Your task to perform on an android device: turn notification dots on Image 0: 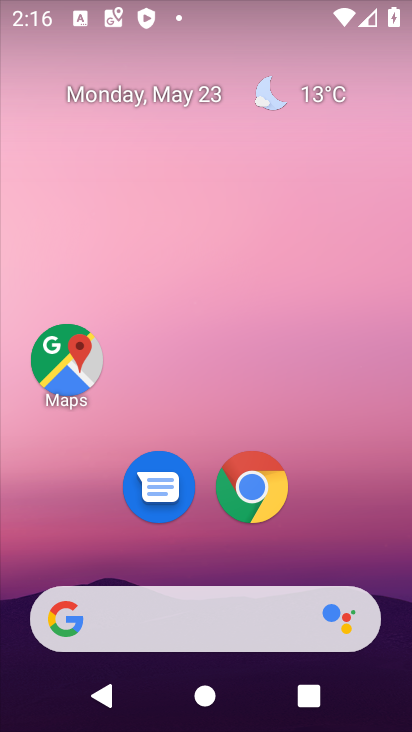
Step 0: drag from (393, 625) to (380, 108)
Your task to perform on an android device: turn notification dots on Image 1: 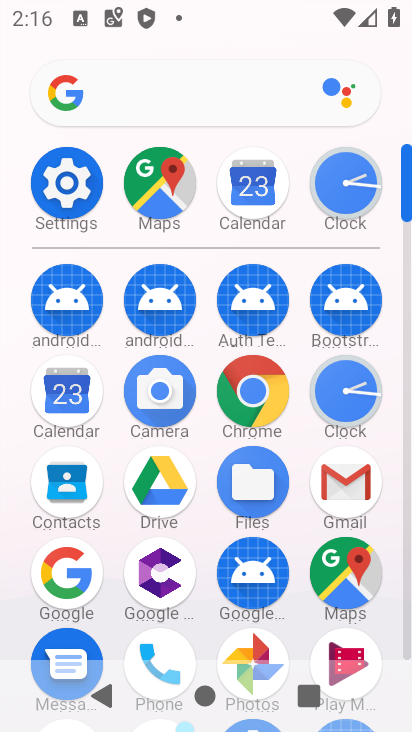
Step 1: click (408, 649)
Your task to perform on an android device: turn notification dots on Image 2: 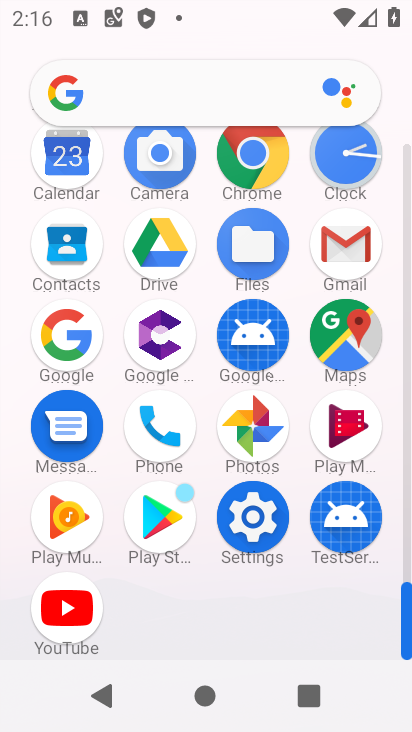
Step 2: click (252, 518)
Your task to perform on an android device: turn notification dots on Image 3: 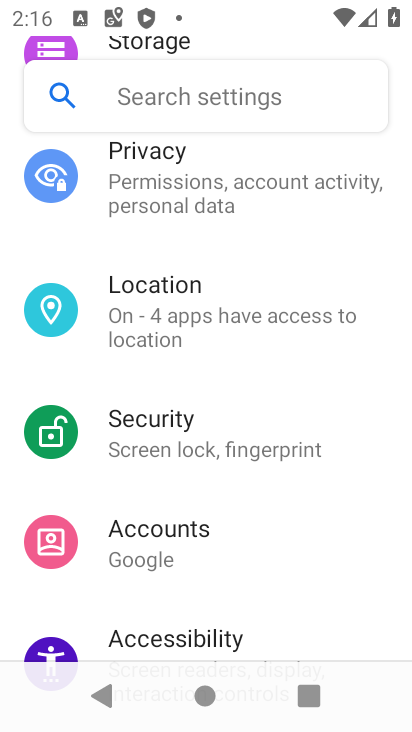
Step 3: drag from (344, 180) to (320, 541)
Your task to perform on an android device: turn notification dots on Image 4: 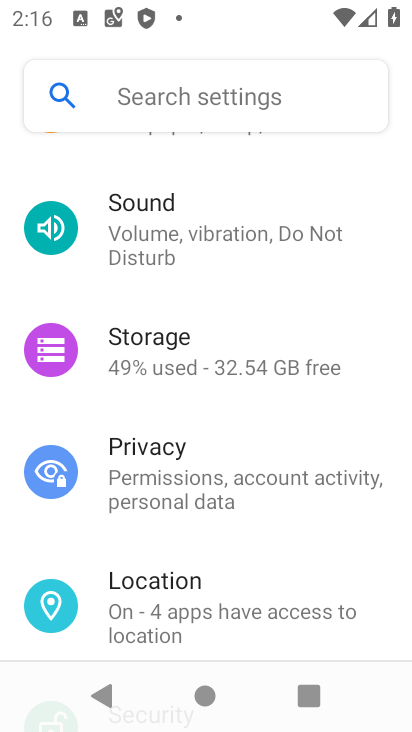
Step 4: drag from (370, 204) to (353, 605)
Your task to perform on an android device: turn notification dots on Image 5: 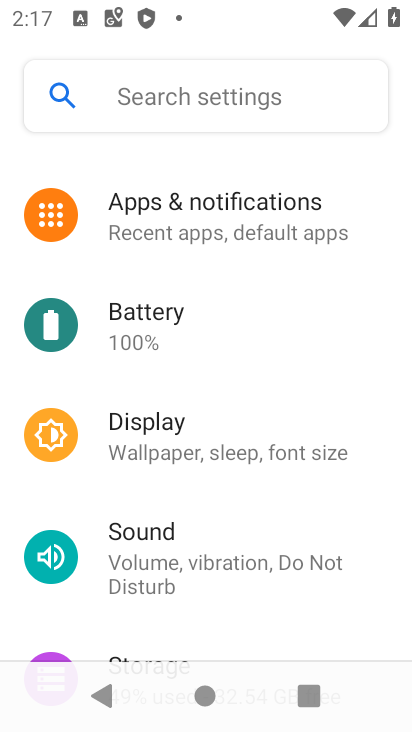
Step 5: click (158, 214)
Your task to perform on an android device: turn notification dots on Image 6: 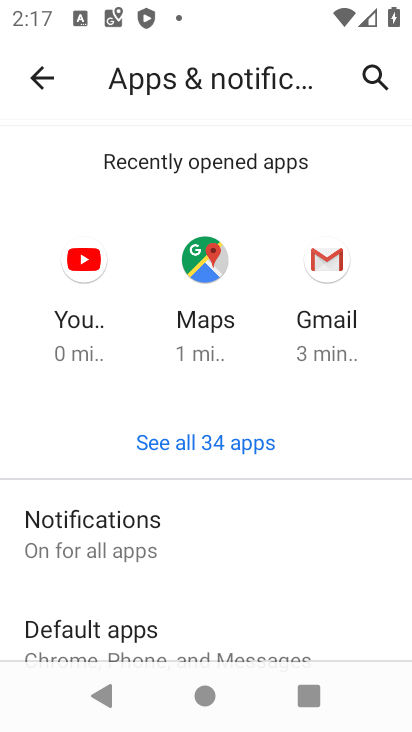
Step 6: drag from (273, 642) to (343, 220)
Your task to perform on an android device: turn notification dots on Image 7: 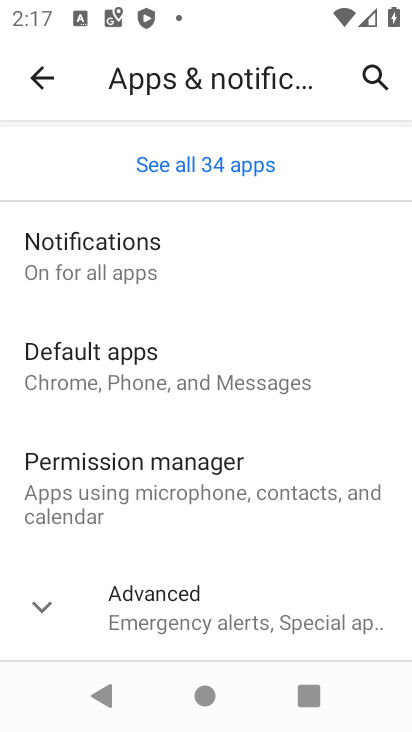
Step 7: click (70, 253)
Your task to perform on an android device: turn notification dots on Image 8: 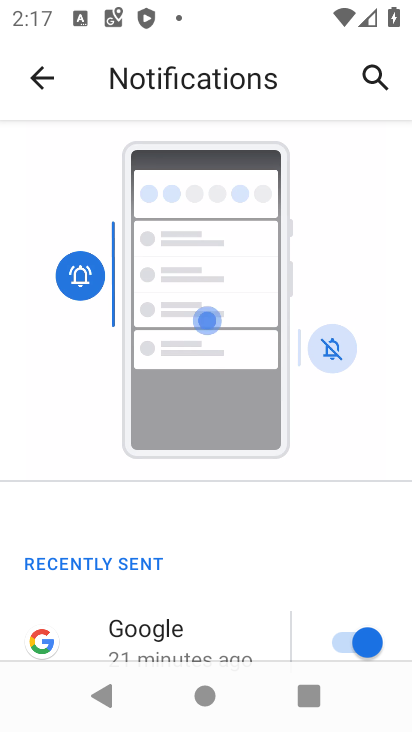
Step 8: drag from (291, 624) to (271, 189)
Your task to perform on an android device: turn notification dots on Image 9: 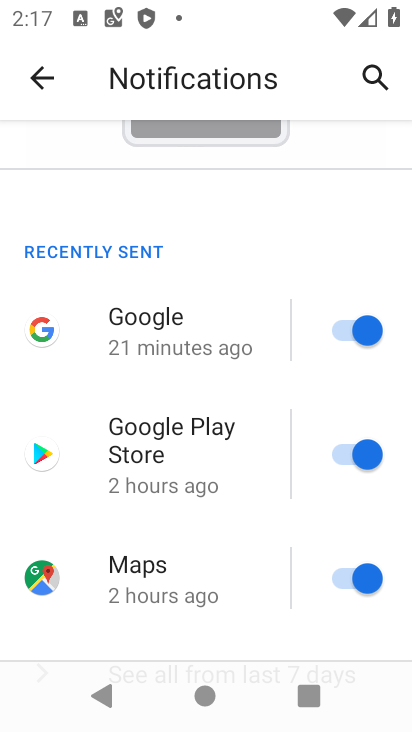
Step 9: drag from (293, 649) to (249, 70)
Your task to perform on an android device: turn notification dots on Image 10: 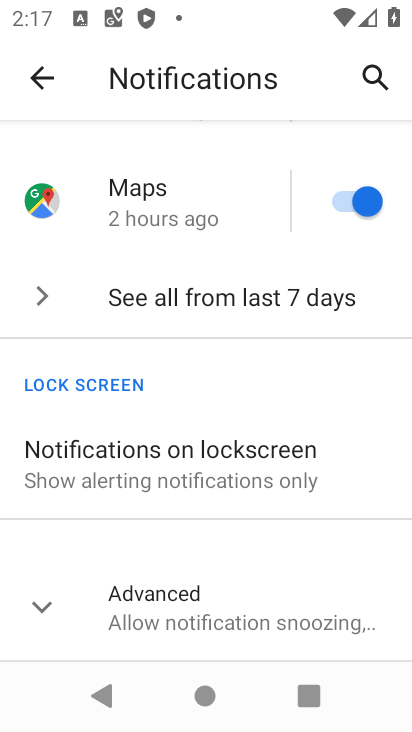
Step 10: click (39, 600)
Your task to perform on an android device: turn notification dots on Image 11: 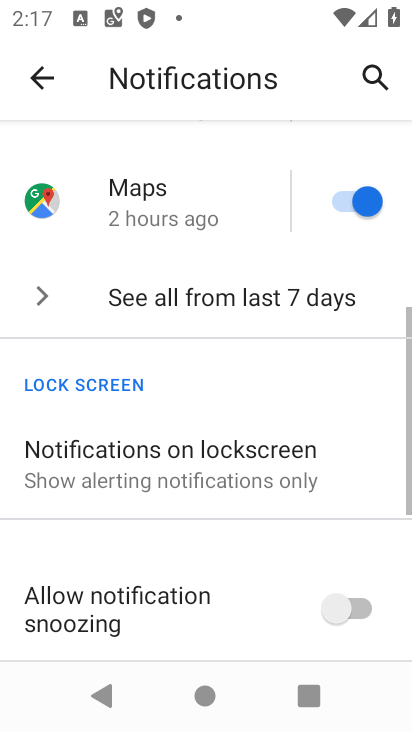
Step 11: task complete